Your task to perform on an android device: Show me popular videos on Youtube Image 0: 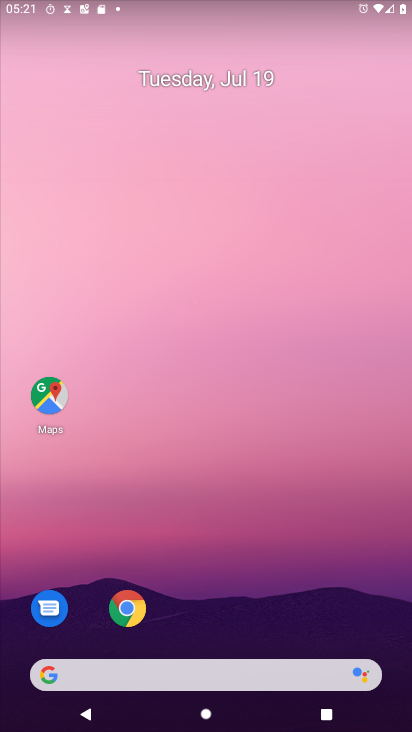
Step 0: drag from (196, 682) to (251, 104)
Your task to perform on an android device: Show me popular videos on Youtube Image 1: 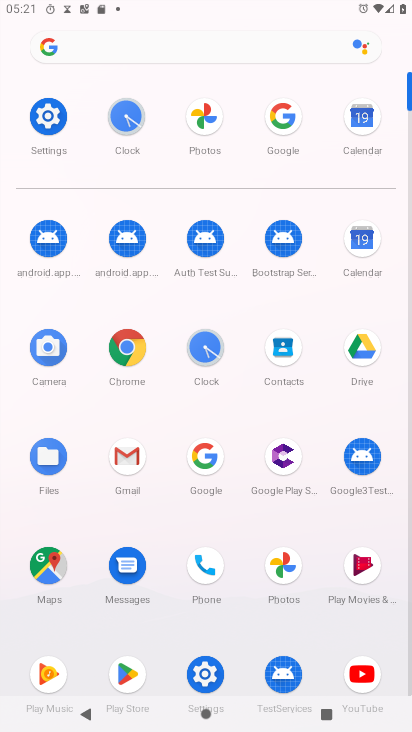
Step 1: click (362, 675)
Your task to perform on an android device: Show me popular videos on Youtube Image 2: 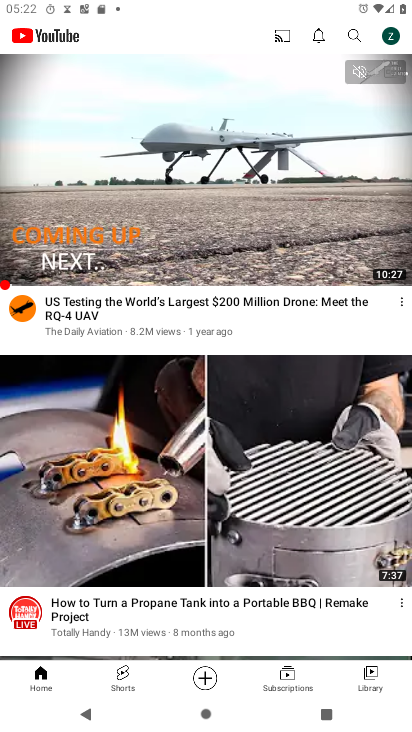
Step 2: click (351, 30)
Your task to perform on an android device: Show me popular videos on Youtube Image 3: 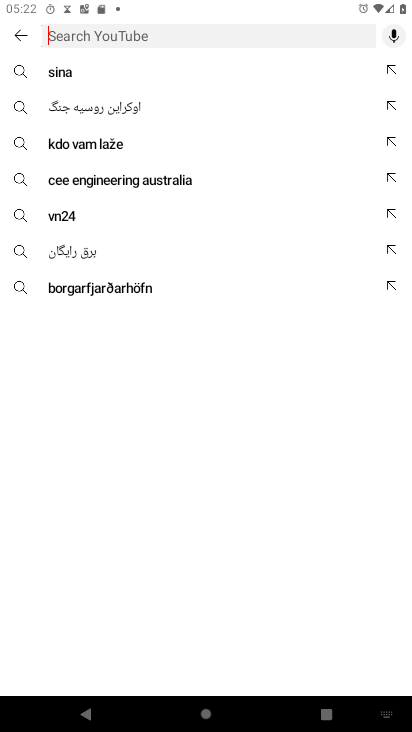
Step 3: type "popular videos"
Your task to perform on an android device: Show me popular videos on Youtube Image 4: 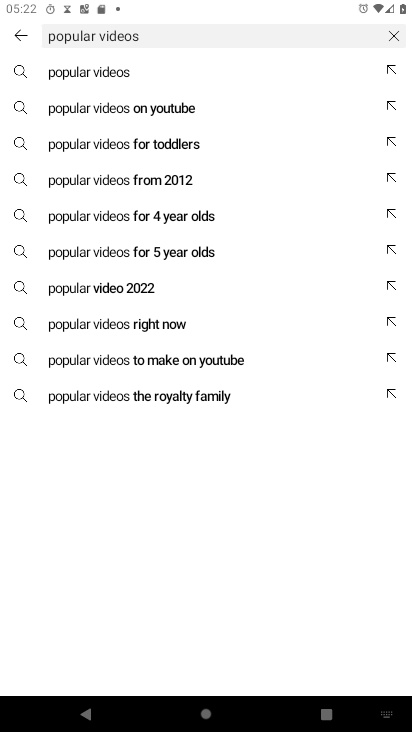
Step 4: click (185, 104)
Your task to perform on an android device: Show me popular videos on Youtube Image 5: 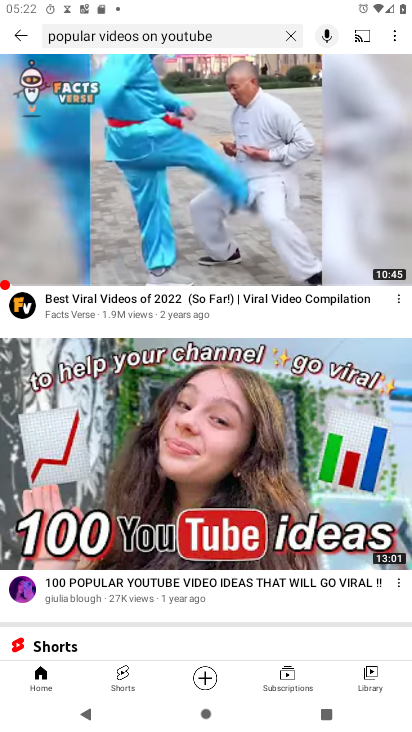
Step 5: task complete